Your task to perform on an android device: toggle pop-ups in chrome Image 0: 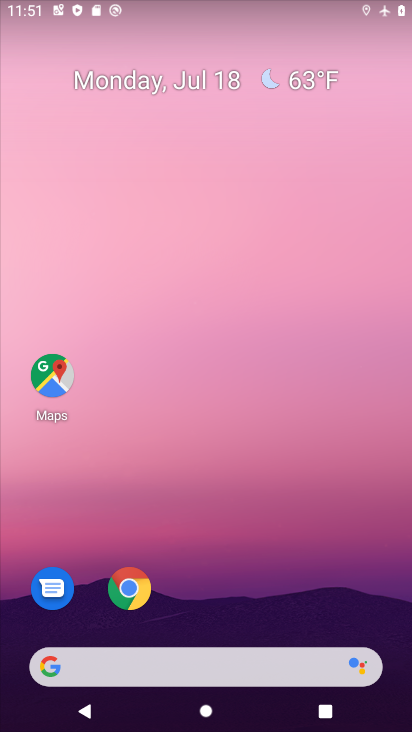
Step 0: drag from (263, 657) to (213, 85)
Your task to perform on an android device: toggle pop-ups in chrome Image 1: 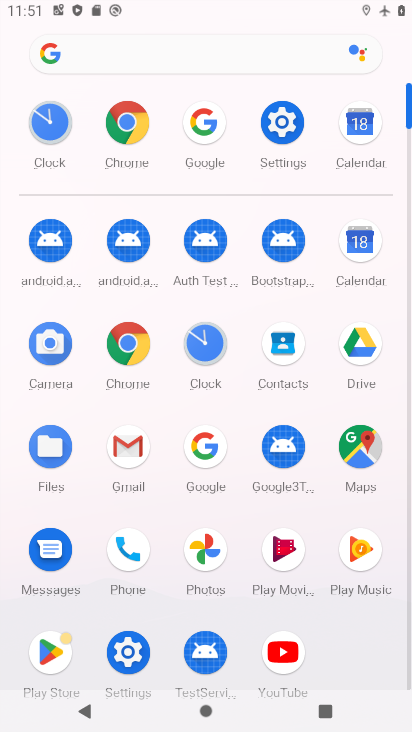
Step 1: click (128, 122)
Your task to perform on an android device: toggle pop-ups in chrome Image 2: 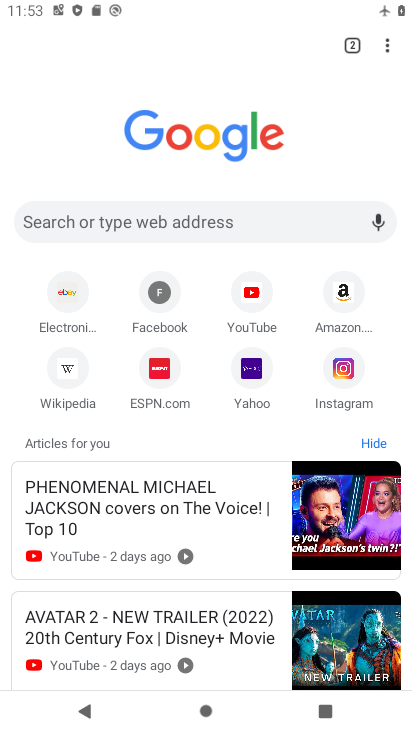
Step 2: drag from (396, 44) to (217, 382)
Your task to perform on an android device: toggle pop-ups in chrome Image 3: 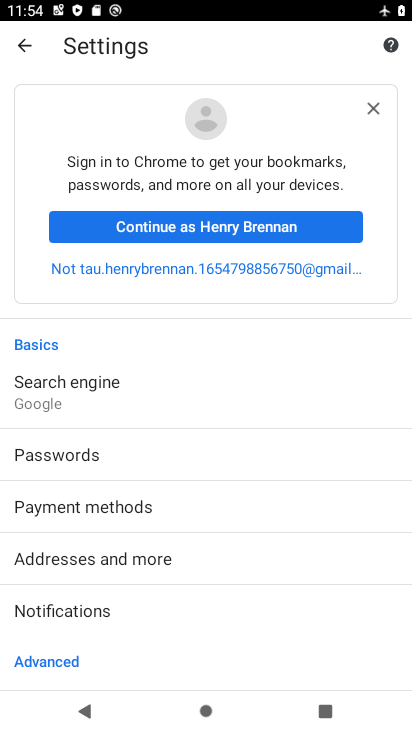
Step 3: drag from (132, 613) to (327, 53)
Your task to perform on an android device: toggle pop-ups in chrome Image 4: 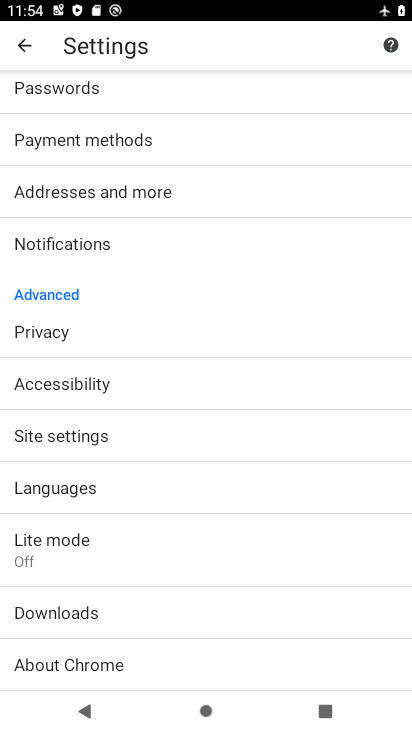
Step 4: click (59, 430)
Your task to perform on an android device: toggle pop-ups in chrome Image 5: 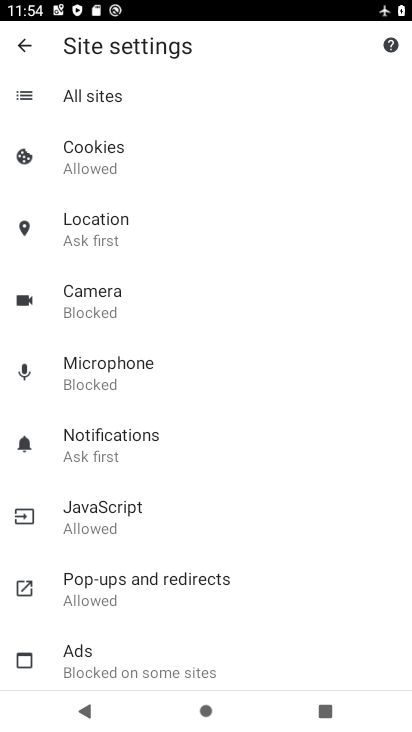
Step 5: click (132, 570)
Your task to perform on an android device: toggle pop-ups in chrome Image 6: 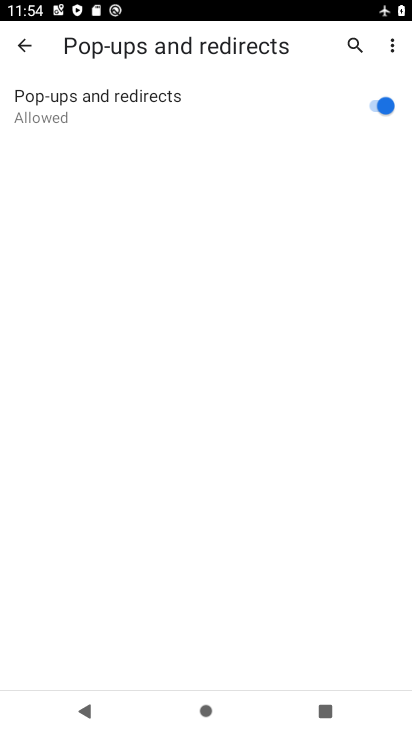
Step 6: click (387, 114)
Your task to perform on an android device: toggle pop-ups in chrome Image 7: 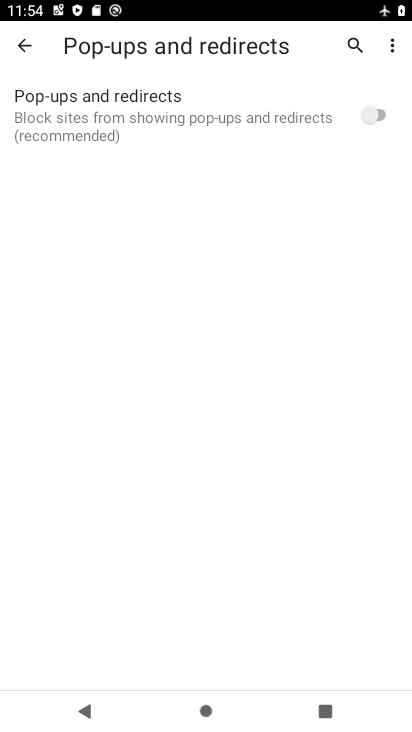
Step 7: task complete